Your task to perform on an android device: turn on location history Image 0: 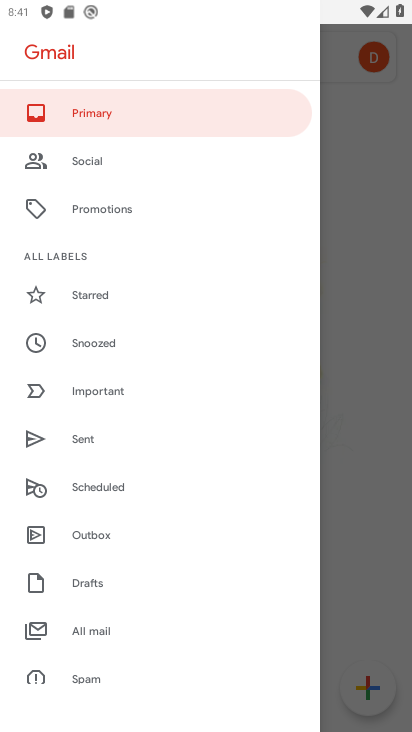
Step 0: drag from (128, 554) to (139, 217)
Your task to perform on an android device: turn on location history Image 1: 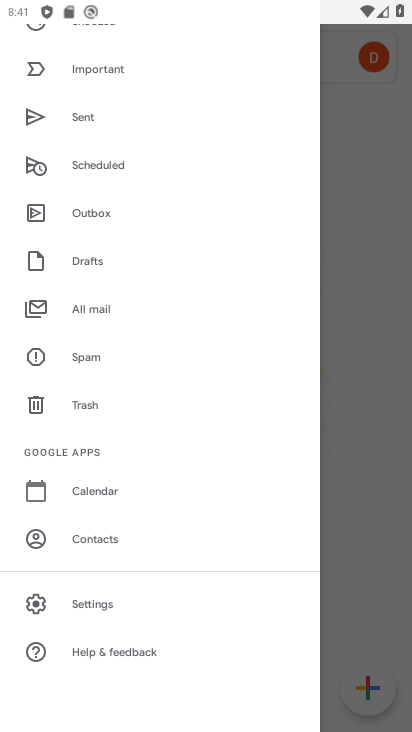
Step 1: press home button
Your task to perform on an android device: turn on location history Image 2: 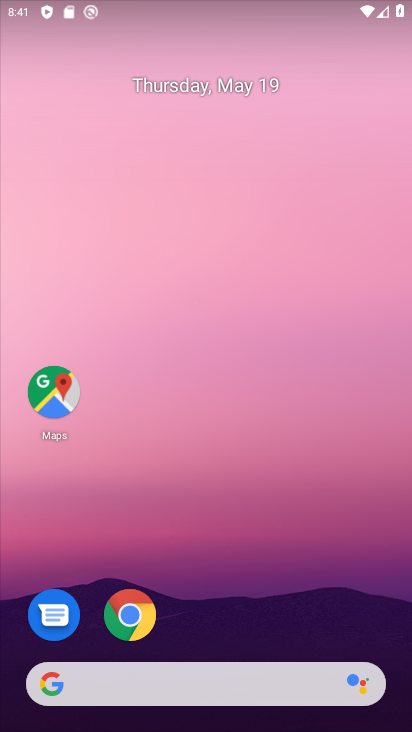
Step 2: click (53, 376)
Your task to perform on an android device: turn on location history Image 3: 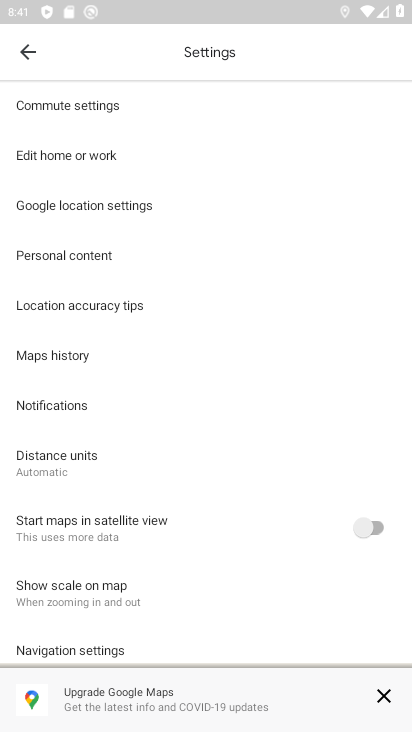
Step 3: click (18, 58)
Your task to perform on an android device: turn on location history Image 4: 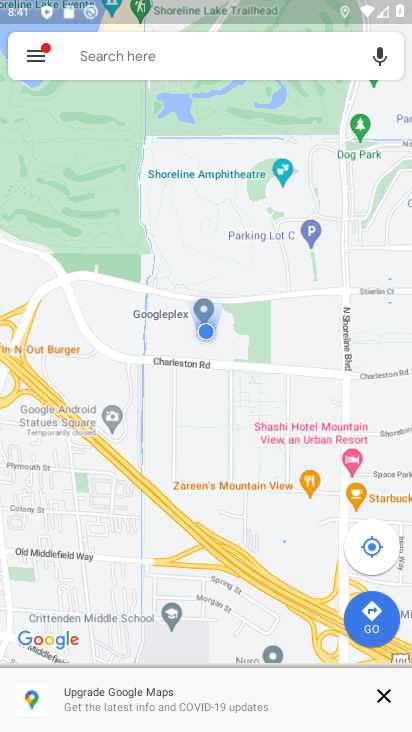
Step 4: click (41, 45)
Your task to perform on an android device: turn on location history Image 5: 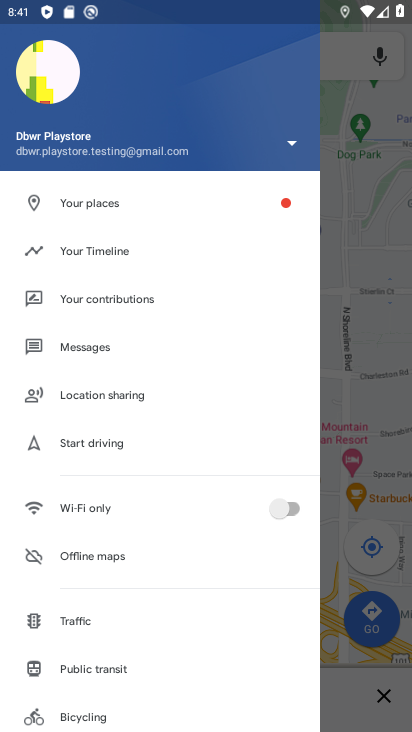
Step 5: click (89, 253)
Your task to perform on an android device: turn on location history Image 6: 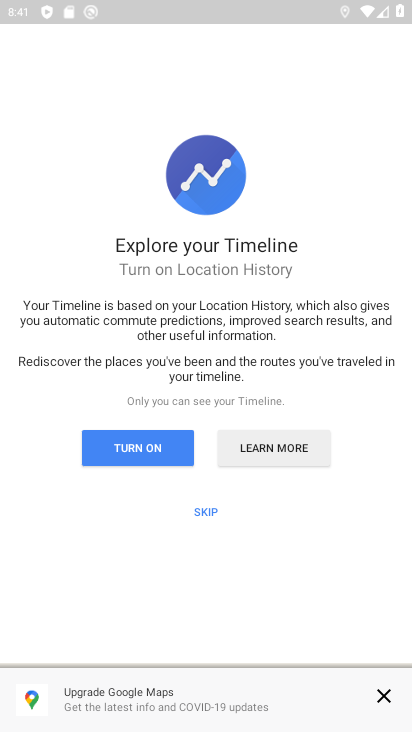
Step 6: click (160, 446)
Your task to perform on an android device: turn on location history Image 7: 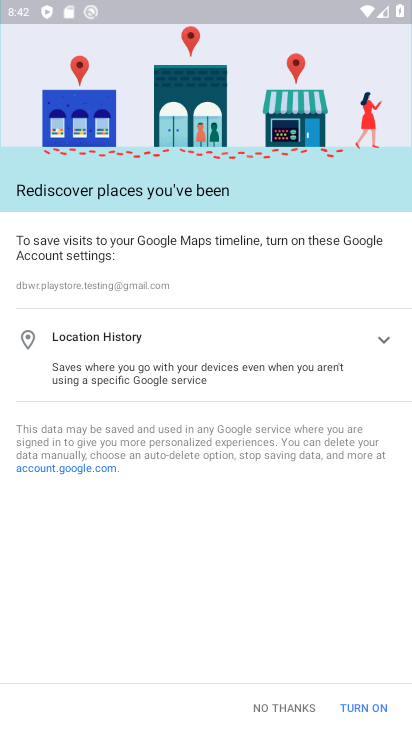
Step 7: click (361, 703)
Your task to perform on an android device: turn on location history Image 8: 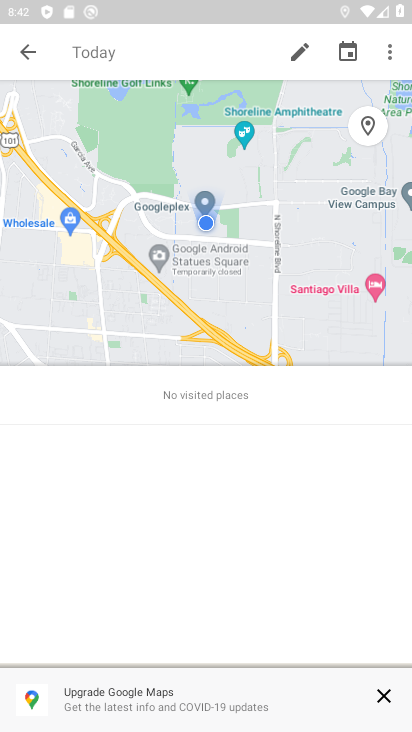
Step 8: click (27, 61)
Your task to perform on an android device: turn on location history Image 9: 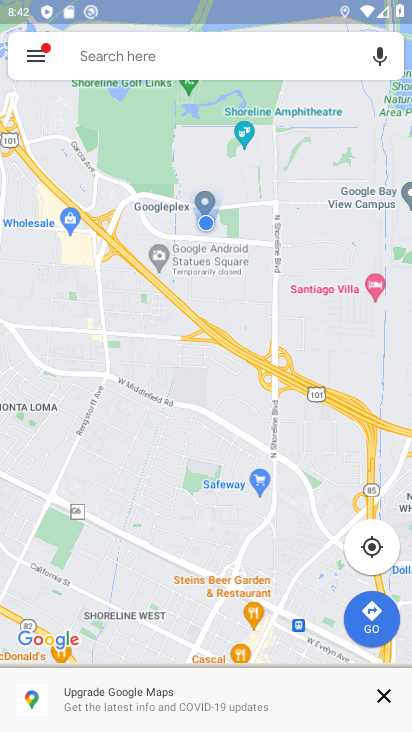
Step 9: click (38, 50)
Your task to perform on an android device: turn on location history Image 10: 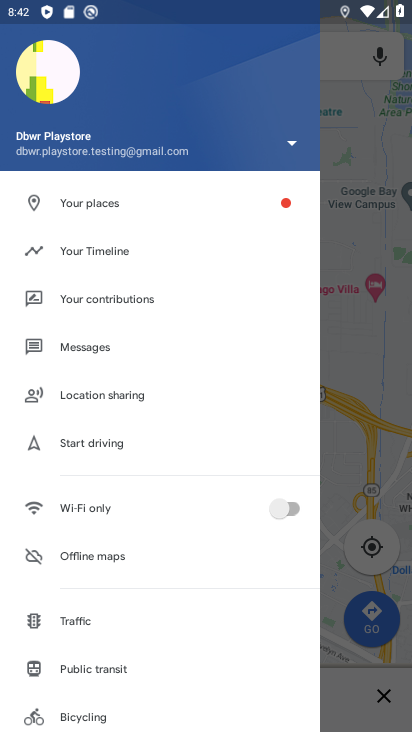
Step 10: task complete